Your task to perform on an android device: Search for sushi restaurants on Maps Image 0: 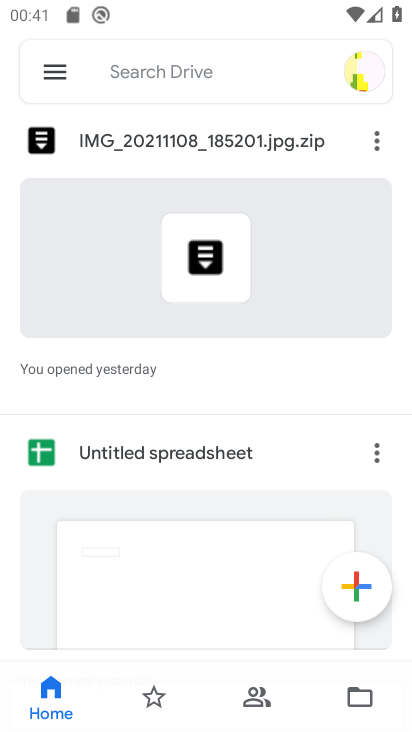
Step 0: press home button
Your task to perform on an android device: Search for sushi restaurants on Maps Image 1: 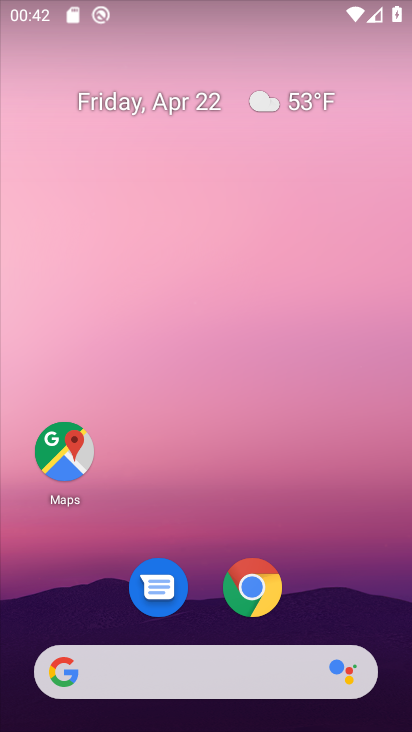
Step 1: click (64, 446)
Your task to perform on an android device: Search for sushi restaurants on Maps Image 2: 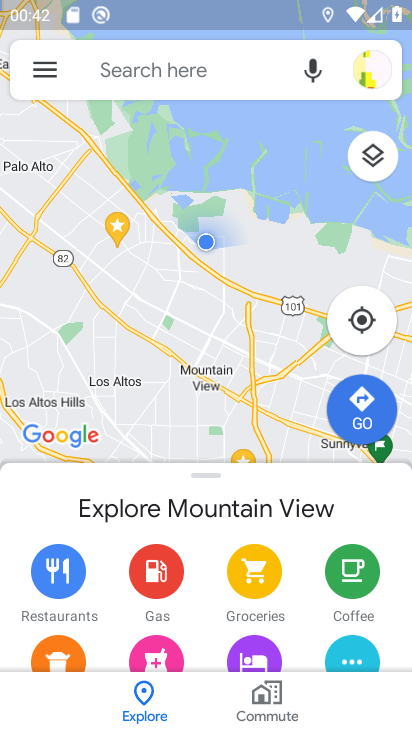
Step 2: click (151, 63)
Your task to perform on an android device: Search for sushi restaurants on Maps Image 3: 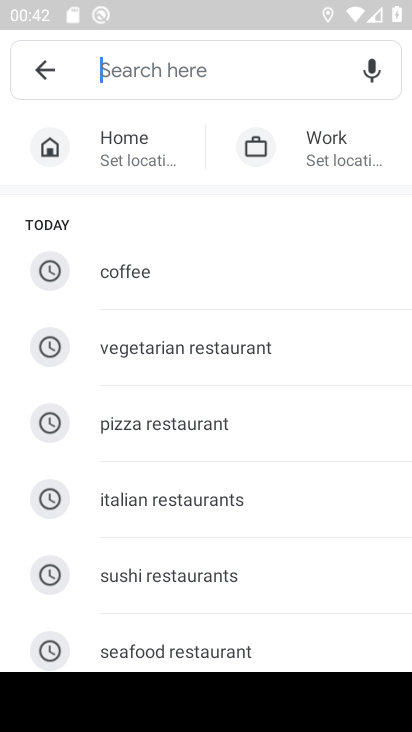
Step 3: click (200, 570)
Your task to perform on an android device: Search for sushi restaurants on Maps Image 4: 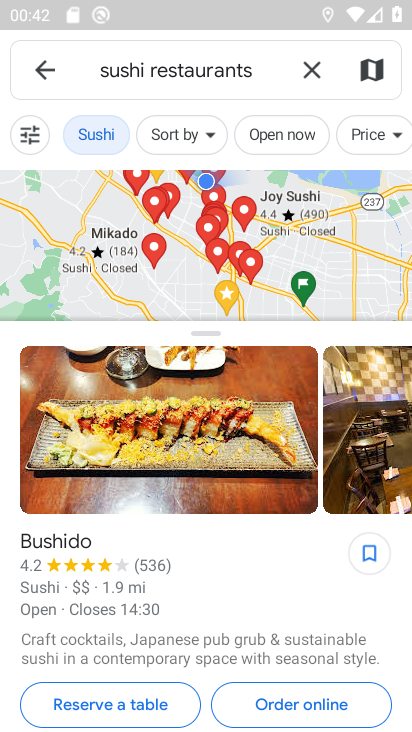
Step 4: task complete